Your task to perform on an android device: move a message to another label in the gmail app Image 0: 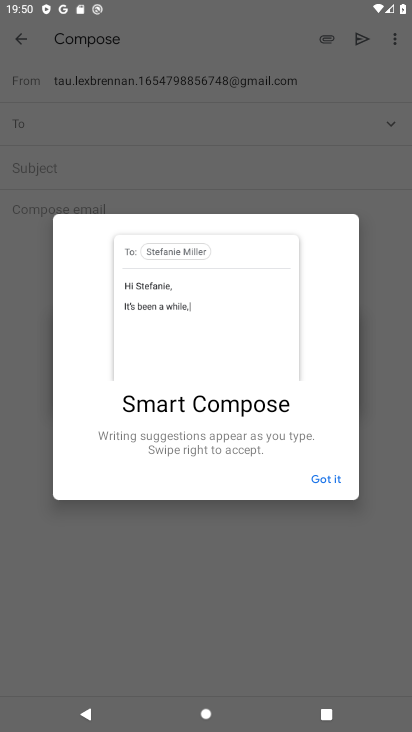
Step 0: press home button
Your task to perform on an android device: move a message to another label in the gmail app Image 1: 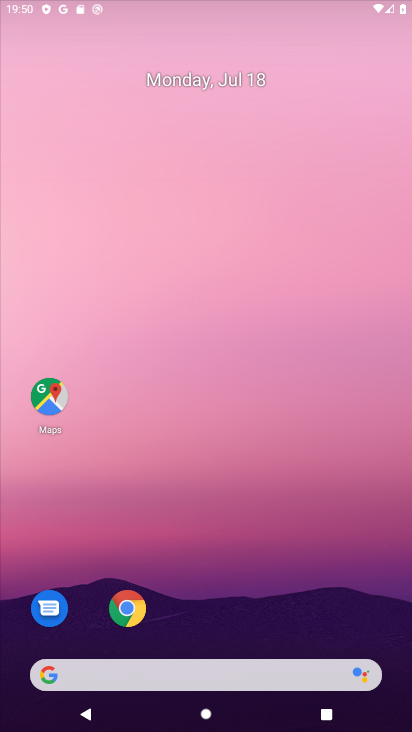
Step 1: drag from (181, 637) to (141, 84)
Your task to perform on an android device: move a message to another label in the gmail app Image 2: 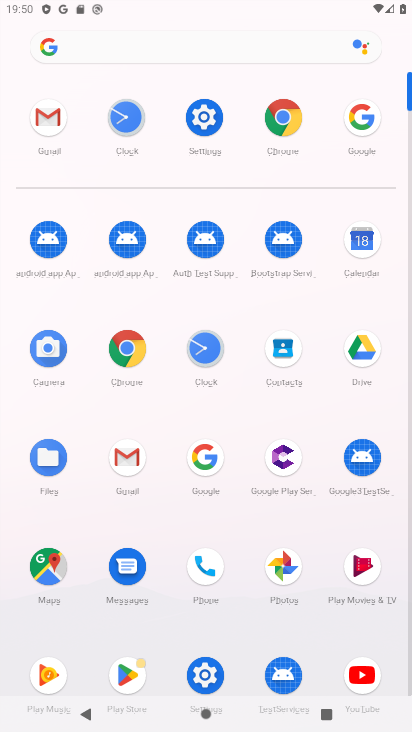
Step 2: click (46, 122)
Your task to perform on an android device: move a message to another label in the gmail app Image 3: 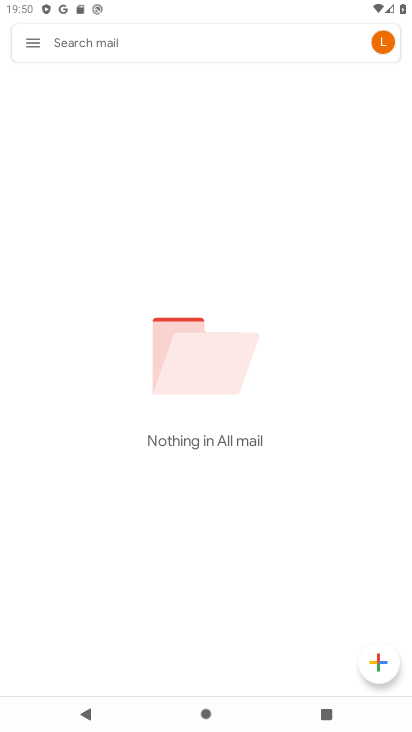
Step 3: click (31, 42)
Your task to perform on an android device: move a message to another label in the gmail app Image 4: 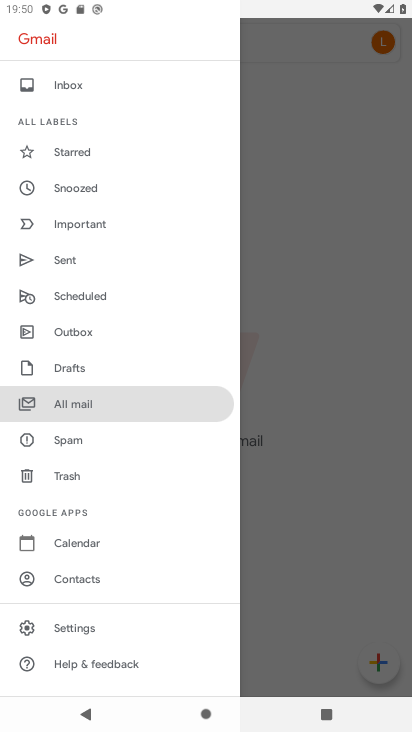
Step 4: click (78, 405)
Your task to perform on an android device: move a message to another label in the gmail app Image 5: 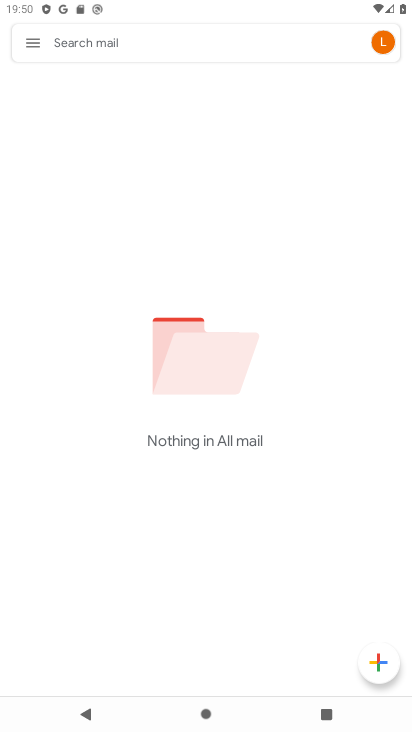
Step 5: task complete